Your task to perform on an android device: Go to Wikipedia Image 0: 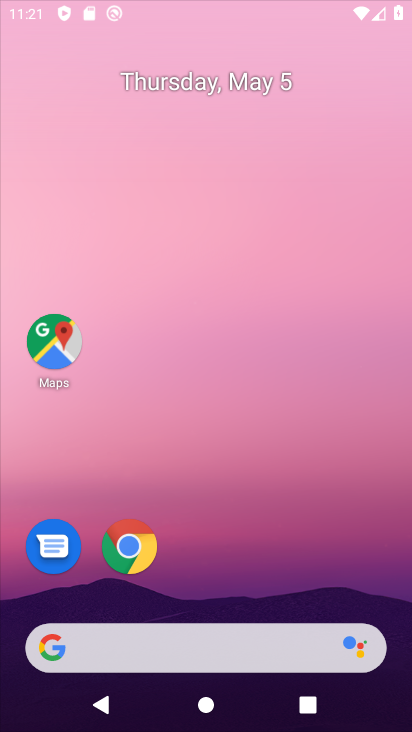
Step 0: drag from (210, 614) to (232, 2)
Your task to perform on an android device: Go to Wikipedia Image 1: 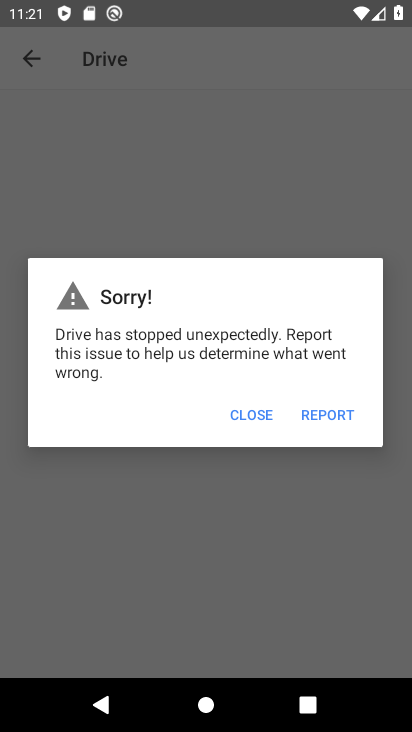
Step 1: press home button
Your task to perform on an android device: Go to Wikipedia Image 2: 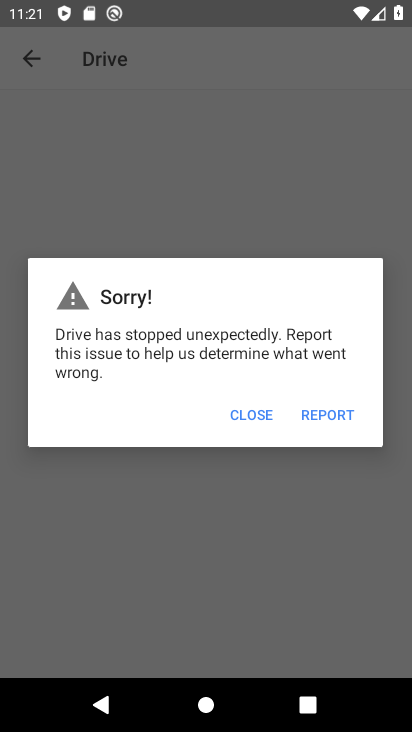
Step 2: drag from (232, 2) to (339, 538)
Your task to perform on an android device: Go to Wikipedia Image 3: 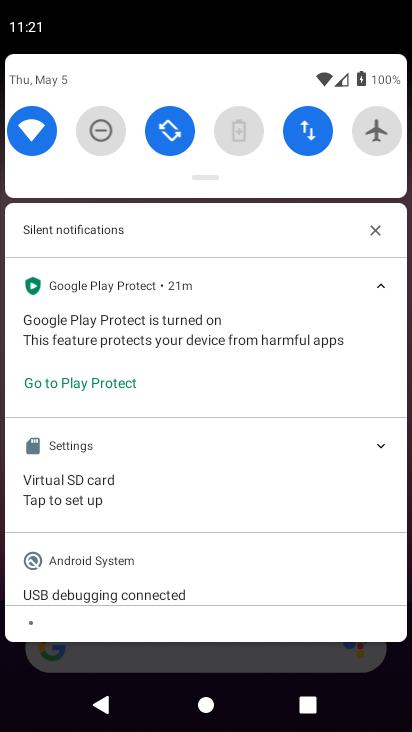
Step 3: click (159, 661)
Your task to perform on an android device: Go to Wikipedia Image 4: 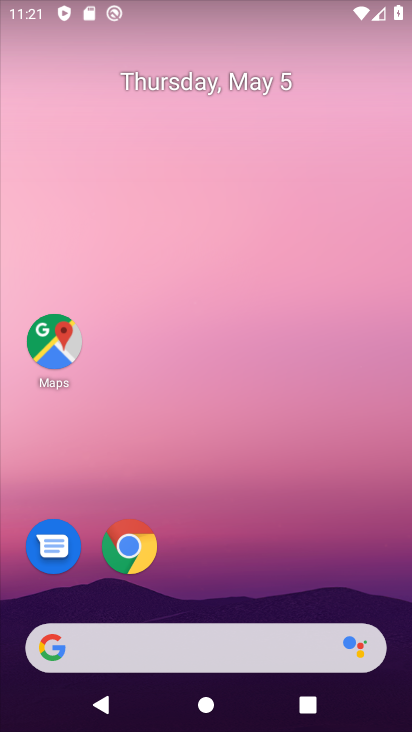
Step 4: click (133, 574)
Your task to perform on an android device: Go to Wikipedia Image 5: 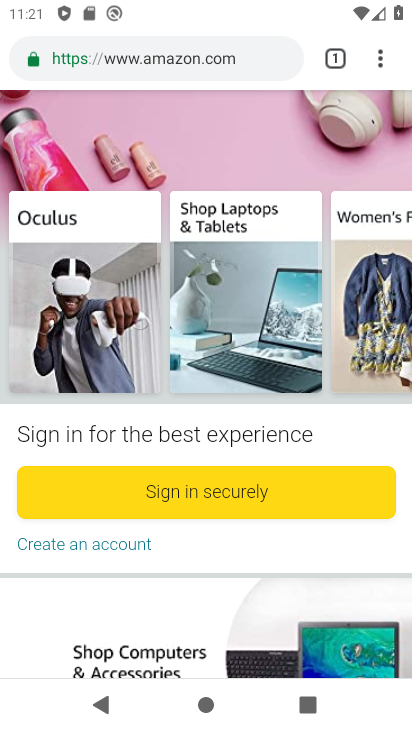
Step 5: click (325, 61)
Your task to perform on an android device: Go to Wikipedia Image 6: 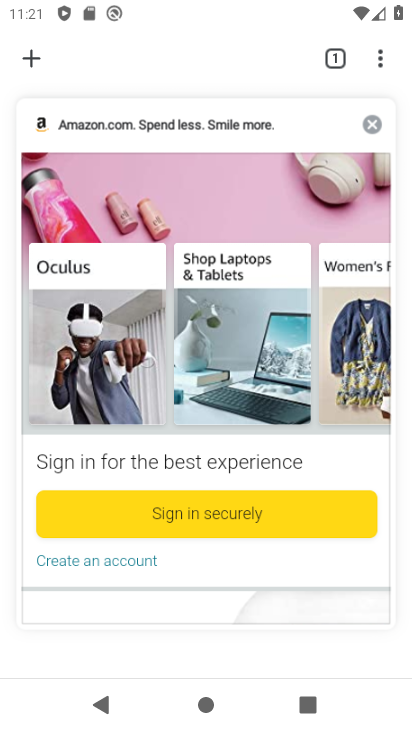
Step 6: click (30, 63)
Your task to perform on an android device: Go to Wikipedia Image 7: 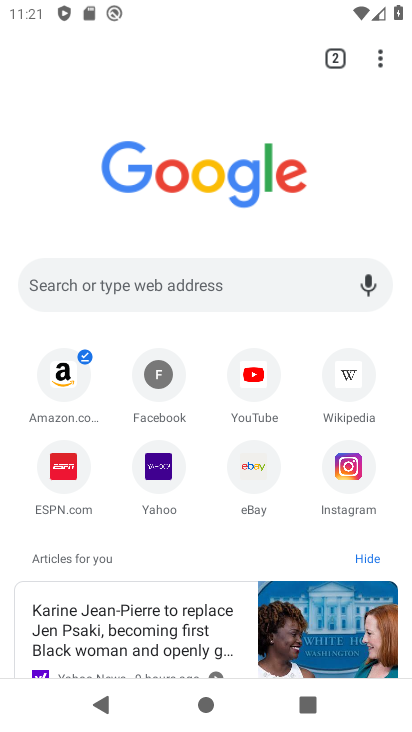
Step 7: click (350, 398)
Your task to perform on an android device: Go to Wikipedia Image 8: 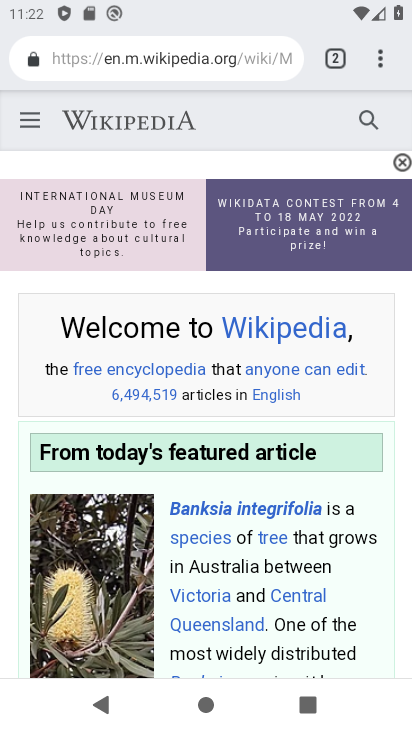
Step 8: task complete